Your task to perform on an android device: Open ESPN.com Image 0: 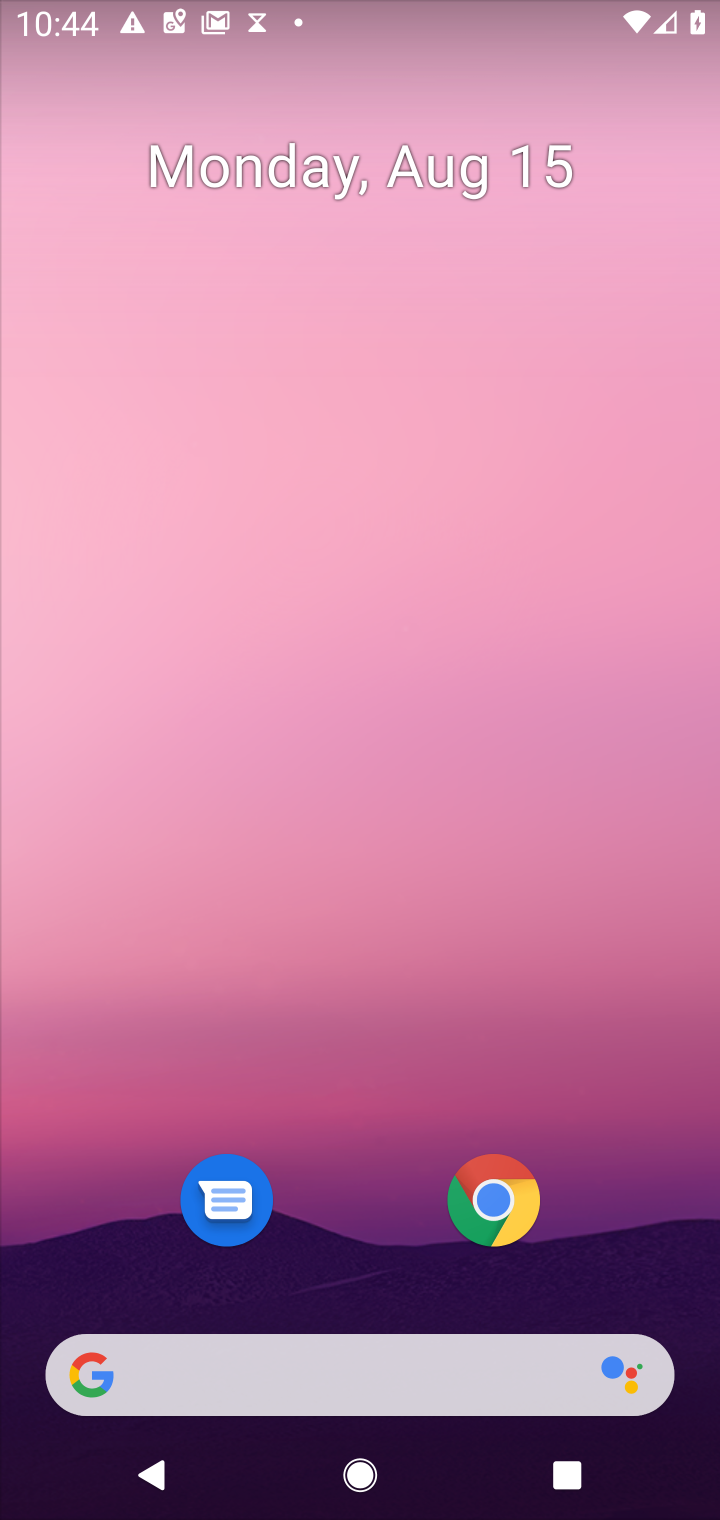
Step 0: click (468, 1202)
Your task to perform on an android device: Open ESPN.com Image 1: 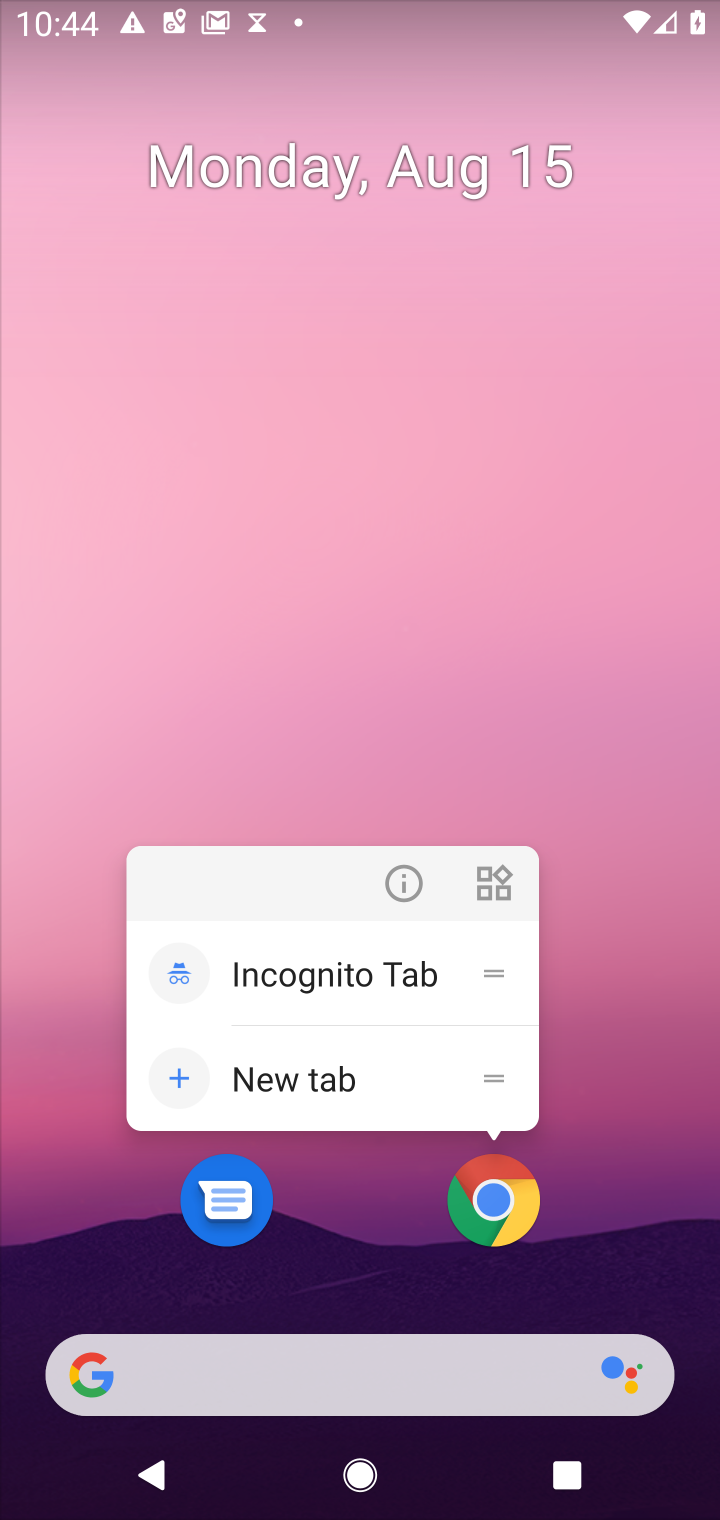
Step 1: click (468, 1202)
Your task to perform on an android device: Open ESPN.com Image 2: 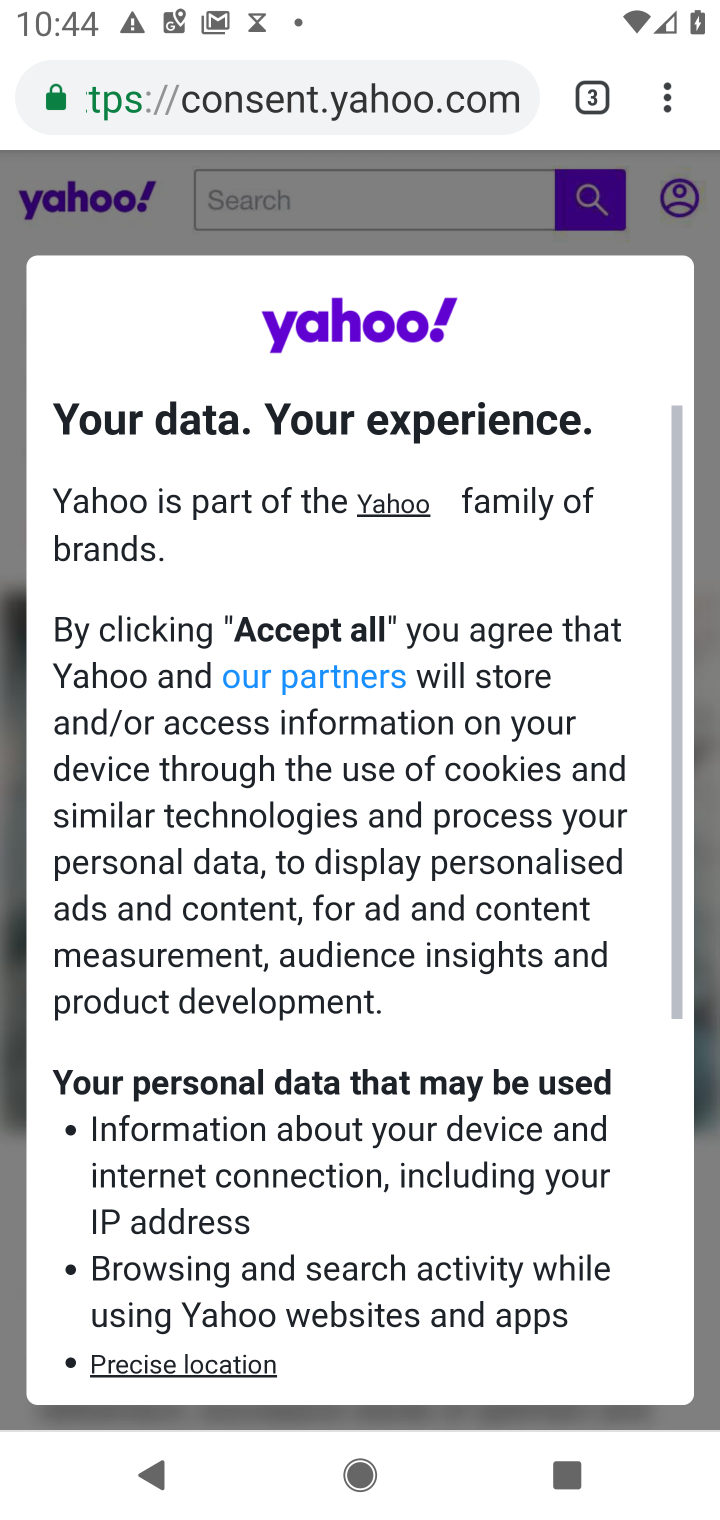
Step 2: click (577, 88)
Your task to perform on an android device: Open ESPN.com Image 3: 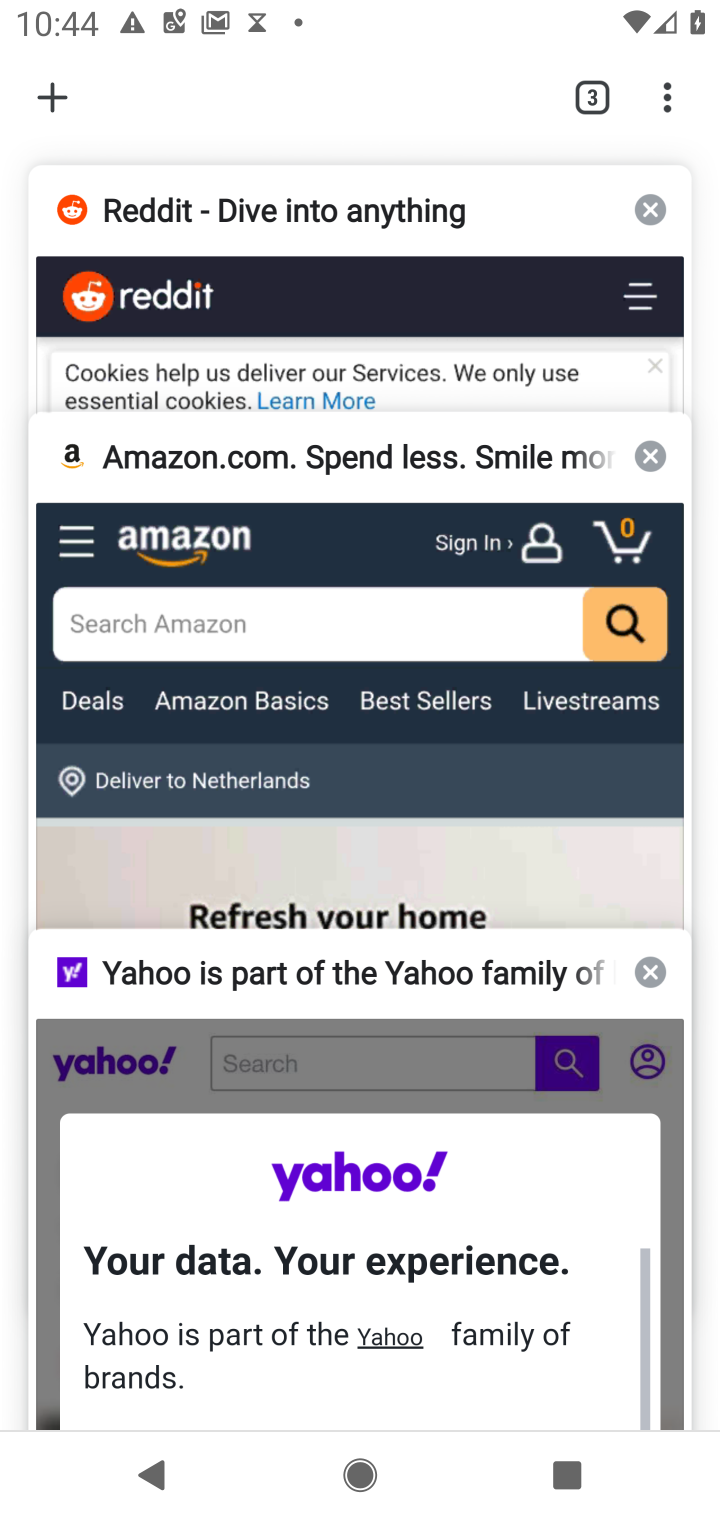
Step 3: click (64, 90)
Your task to perform on an android device: Open ESPN.com Image 4: 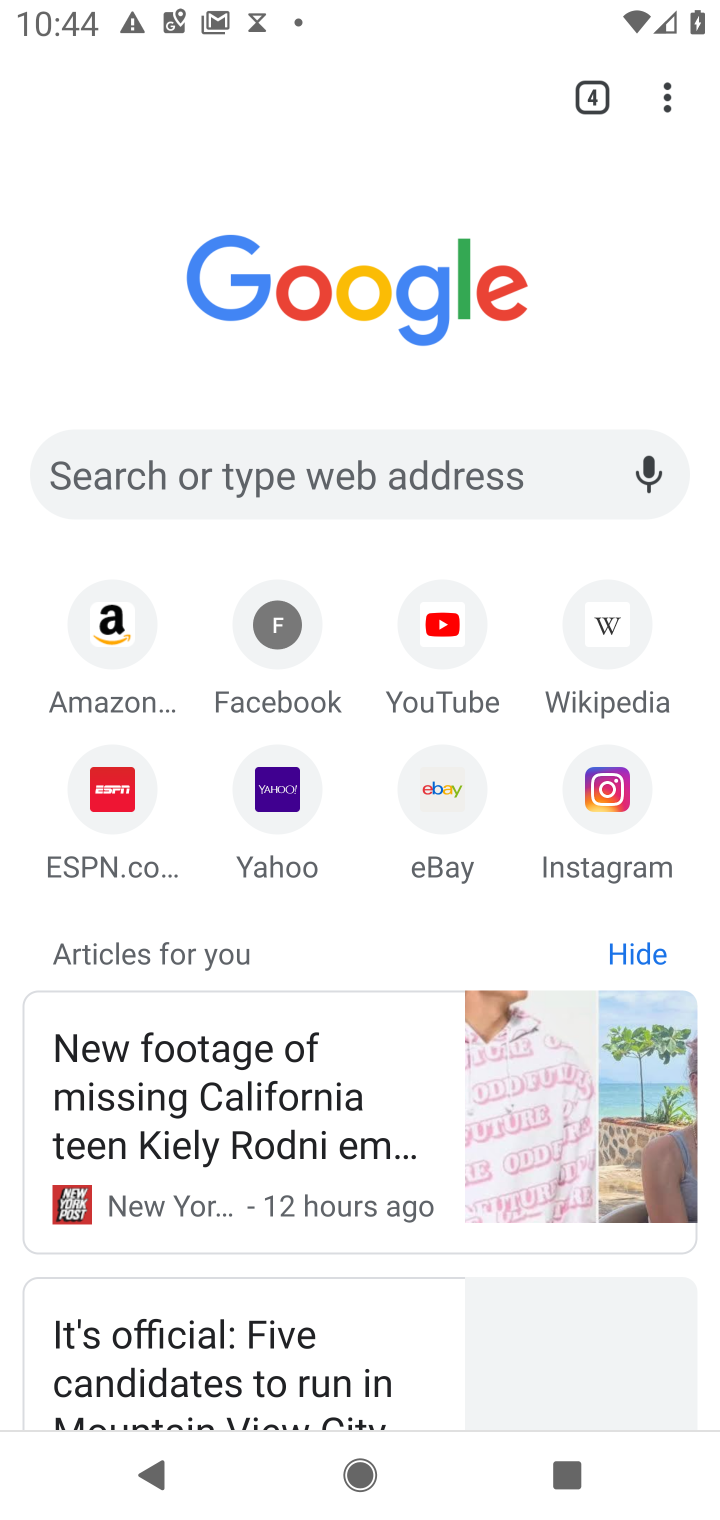
Step 4: click (262, 461)
Your task to perform on an android device: Open ESPN.com Image 5: 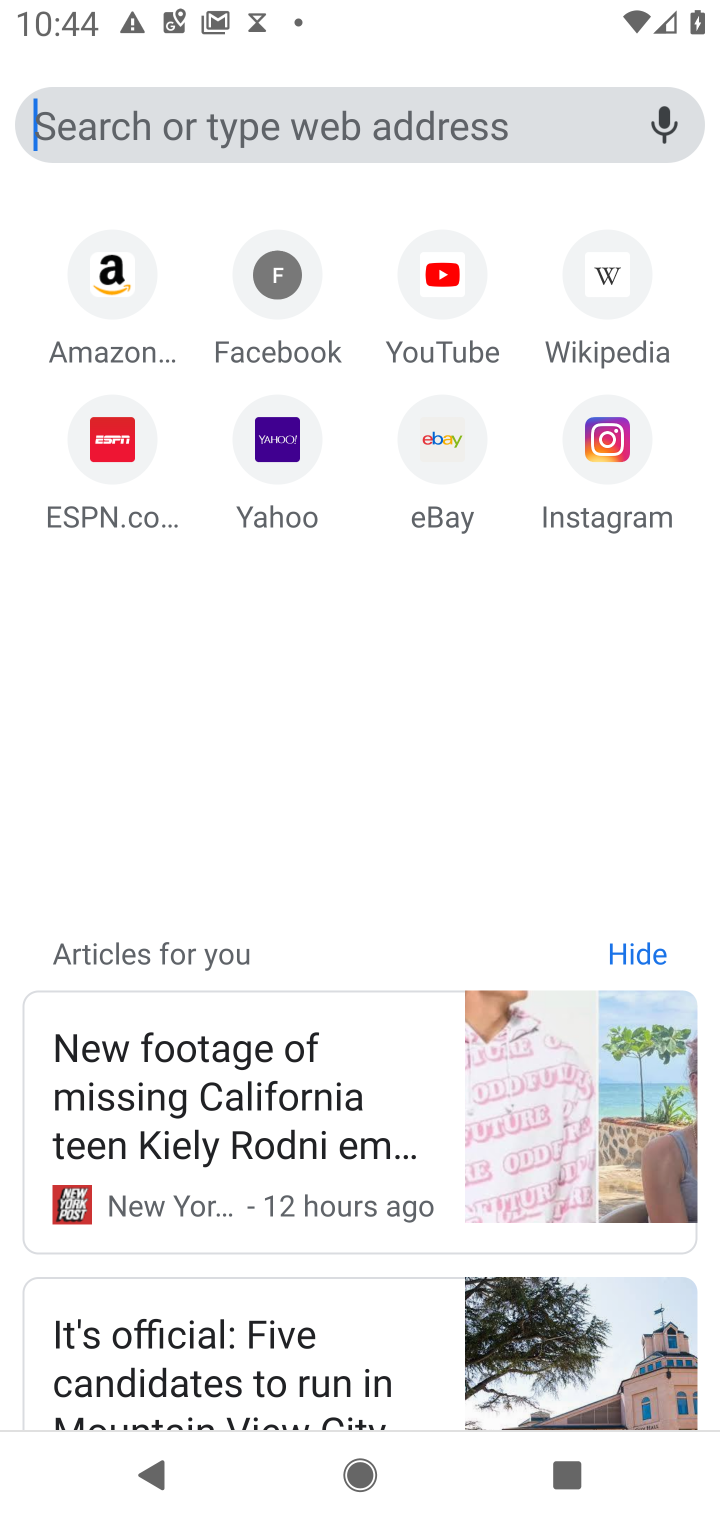
Step 5: click (120, 795)
Your task to perform on an android device: Open ESPN.com Image 6: 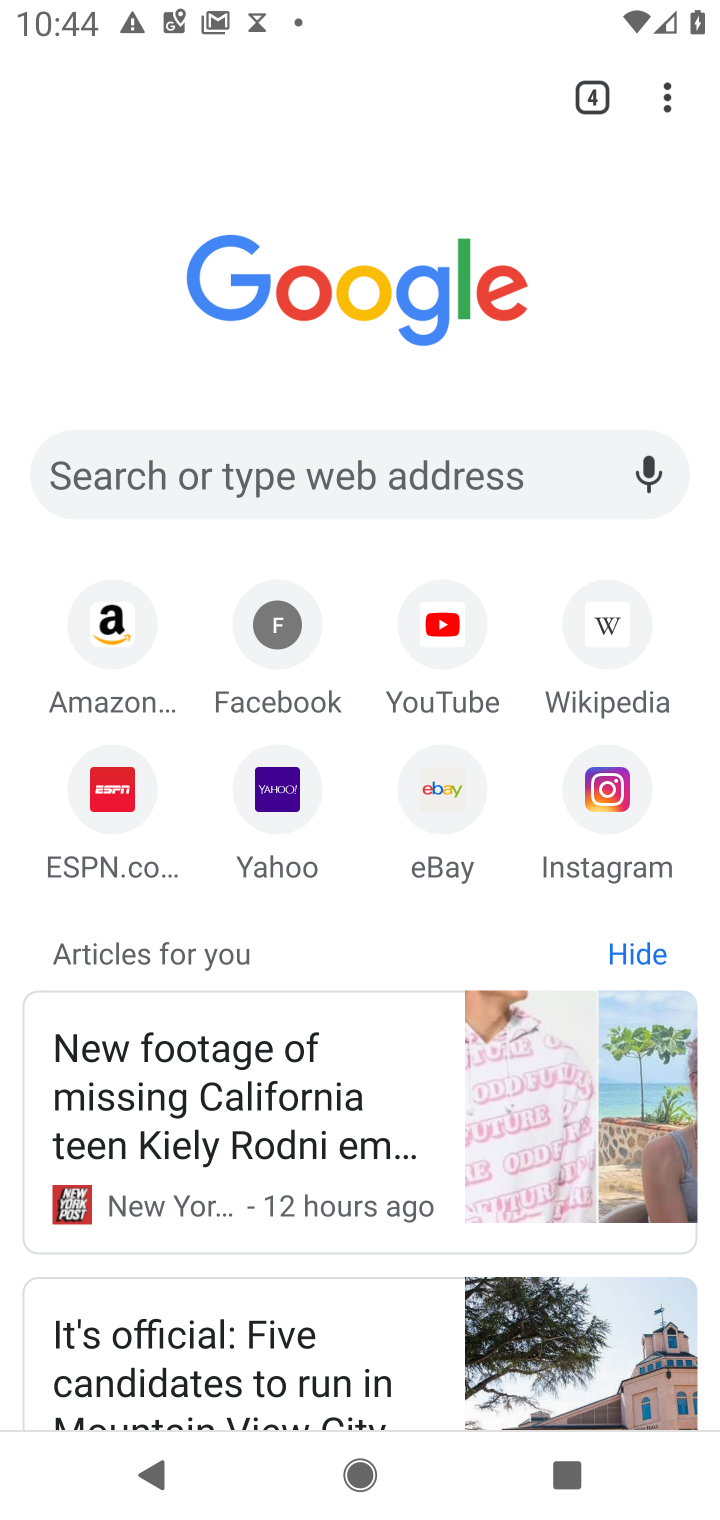
Step 6: click (96, 807)
Your task to perform on an android device: Open ESPN.com Image 7: 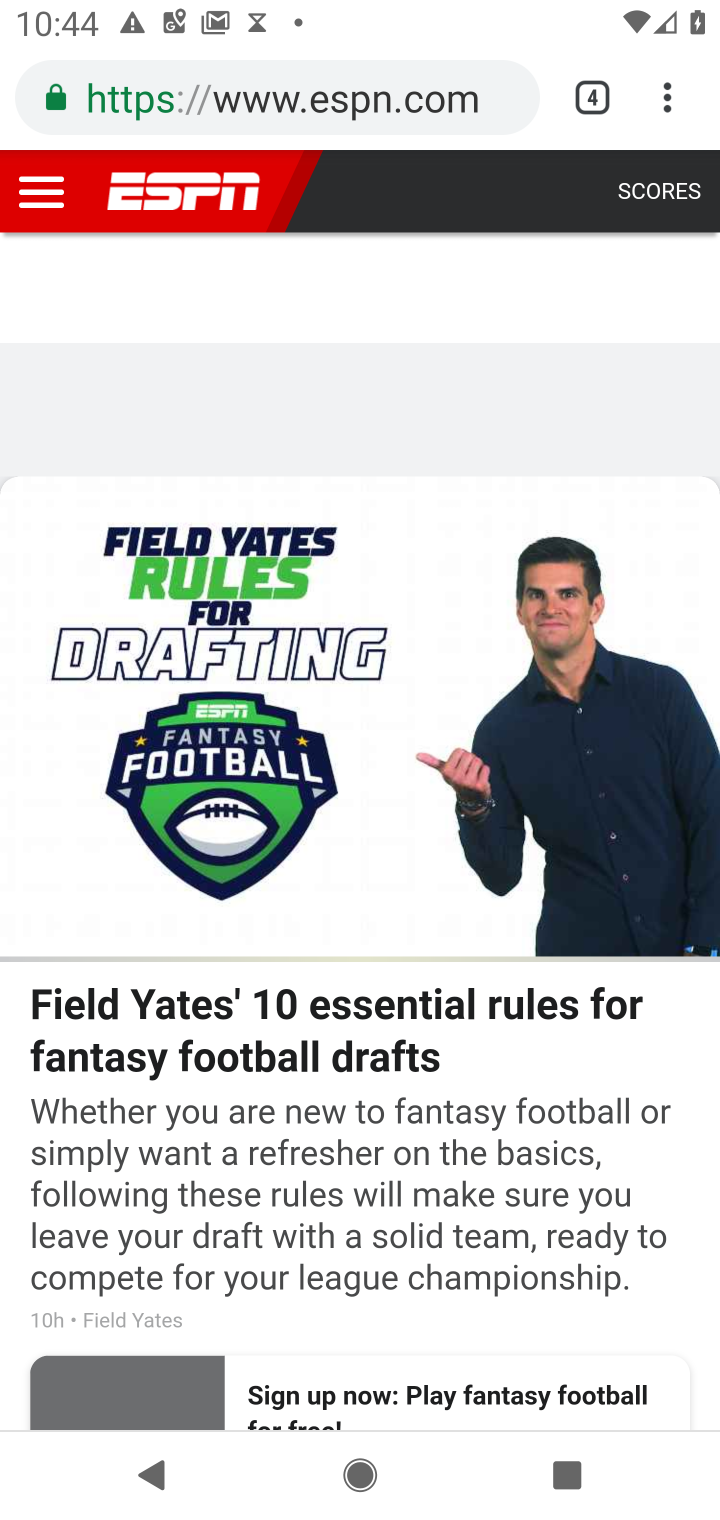
Step 7: task complete